Your task to perform on an android device: Go to Reddit.com Image 0: 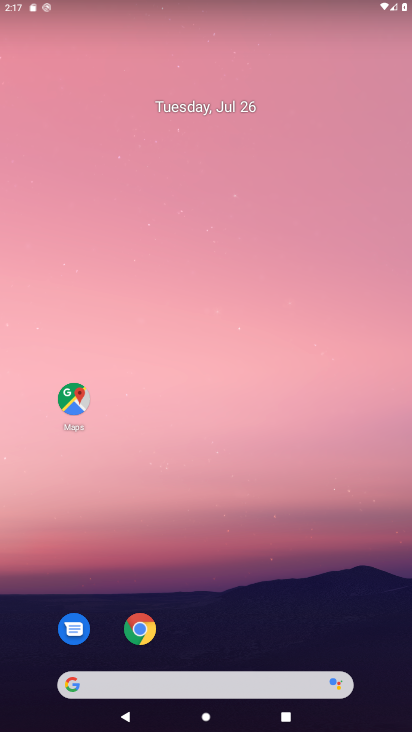
Step 0: click (157, 632)
Your task to perform on an android device: Go to Reddit.com Image 1: 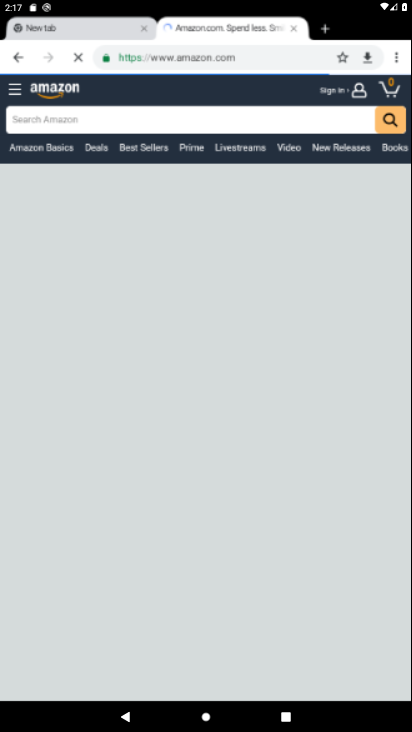
Step 1: click (328, 21)
Your task to perform on an android device: Go to Reddit.com Image 2: 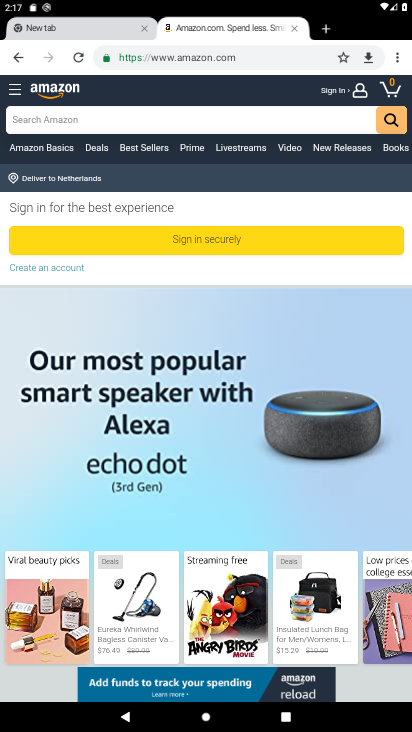
Step 2: click (324, 30)
Your task to perform on an android device: Go to Reddit.com Image 3: 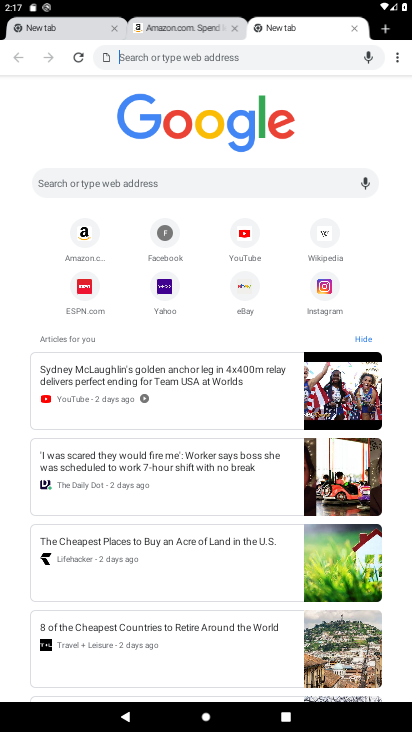
Step 3: click (103, 193)
Your task to perform on an android device: Go to Reddit.com Image 4: 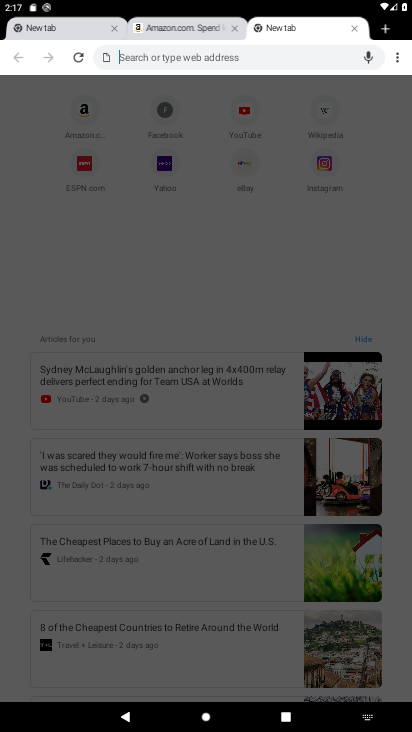
Step 4: type "Reddit.com"
Your task to perform on an android device: Go to Reddit.com Image 5: 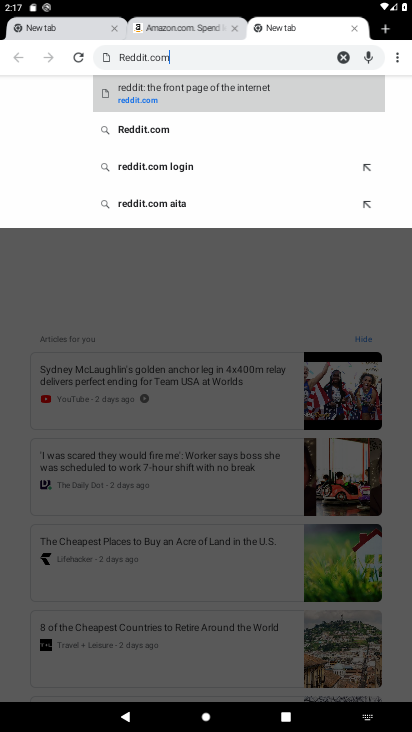
Step 5: click (152, 80)
Your task to perform on an android device: Go to Reddit.com Image 6: 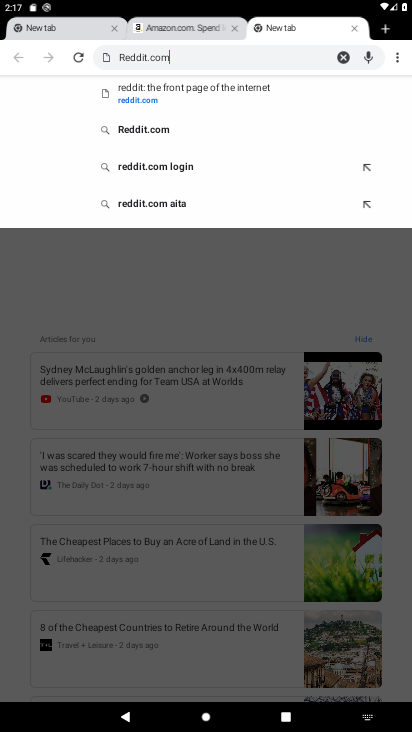
Step 6: click (145, 102)
Your task to perform on an android device: Go to Reddit.com Image 7: 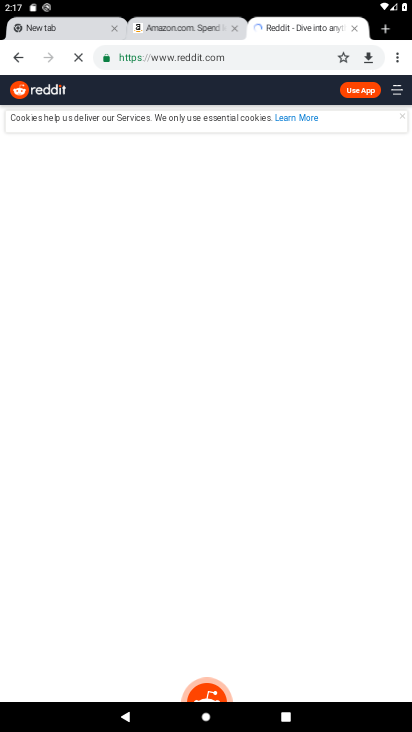
Step 7: task complete